Your task to perform on an android device: open the mobile data screen to see how much data has been used Image 0: 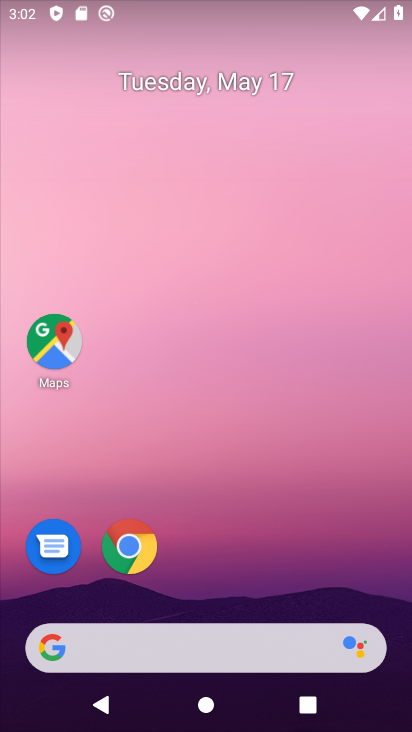
Step 0: drag from (288, 550) to (272, 117)
Your task to perform on an android device: open the mobile data screen to see how much data has been used Image 1: 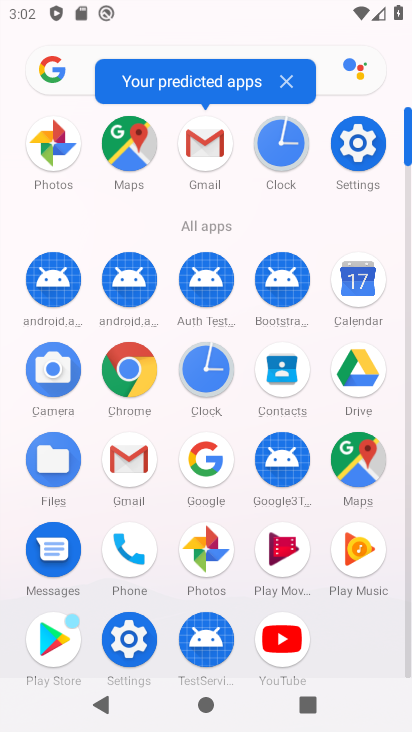
Step 1: click (363, 146)
Your task to perform on an android device: open the mobile data screen to see how much data has been used Image 2: 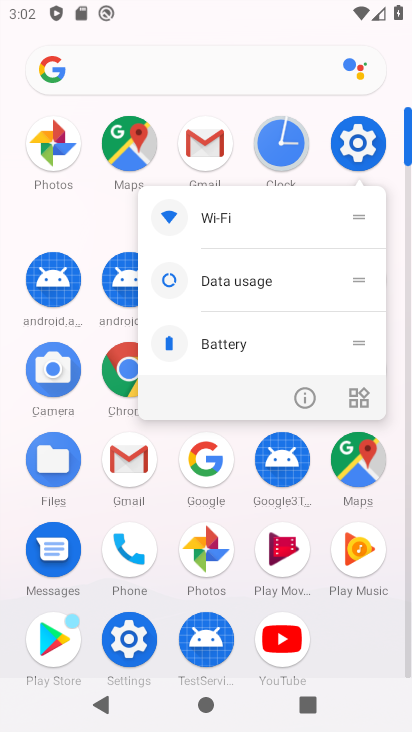
Step 2: click (239, 278)
Your task to perform on an android device: open the mobile data screen to see how much data has been used Image 3: 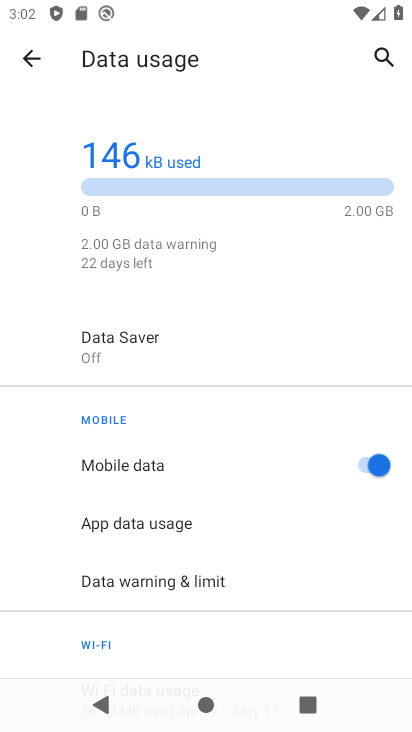
Step 3: task complete